Your task to perform on an android device: turn on notifications settings in the gmail app Image 0: 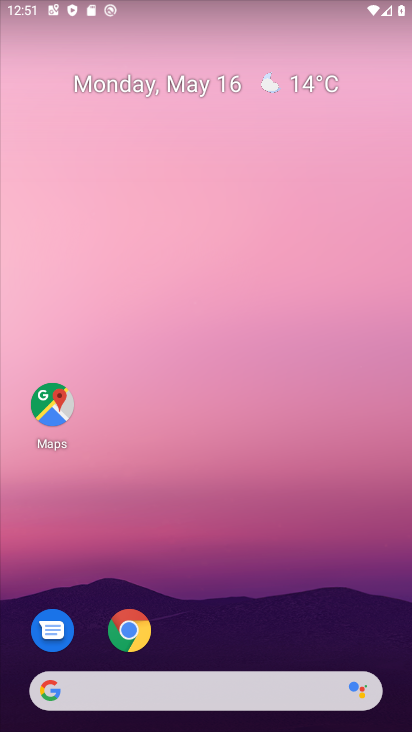
Step 0: drag from (304, 646) to (262, 18)
Your task to perform on an android device: turn on notifications settings in the gmail app Image 1: 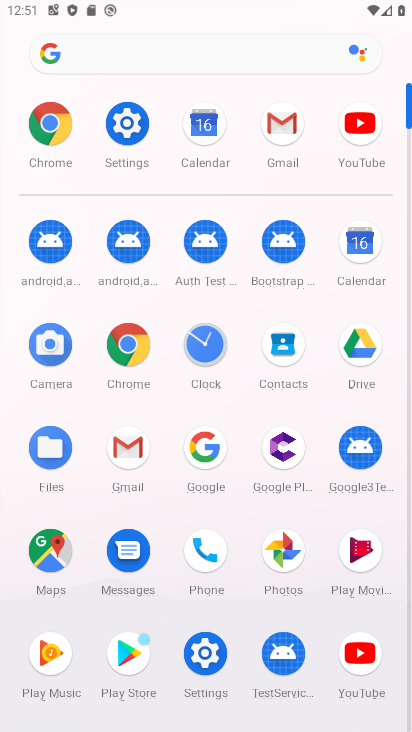
Step 1: click (282, 142)
Your task to perform on an android device: turn on notifications settings in the gmail app Image 2: 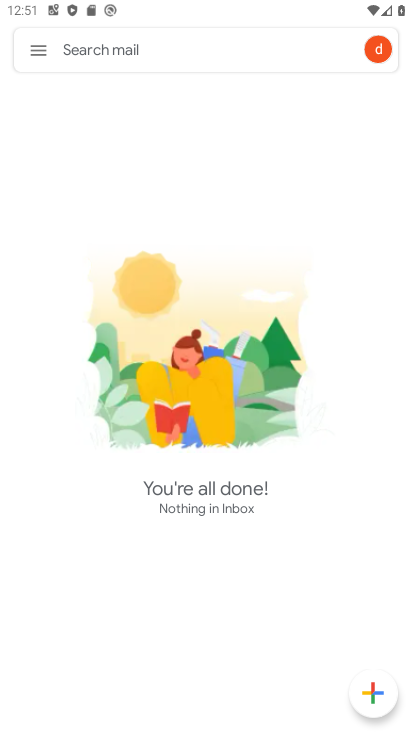
Step 2: click (35, 50)
Your task to perform on an android device: turn on notifications settings in the gmail app Image 3: 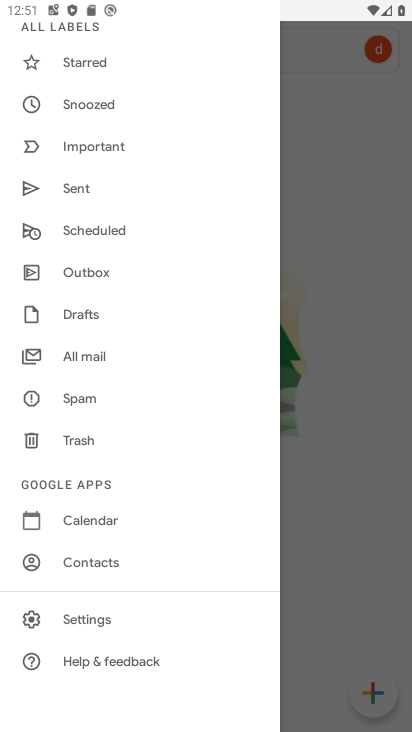
Step 3: click (100, 621)
Your task to perform on an android device: turn on notifications settings in the gmail app Image 4: 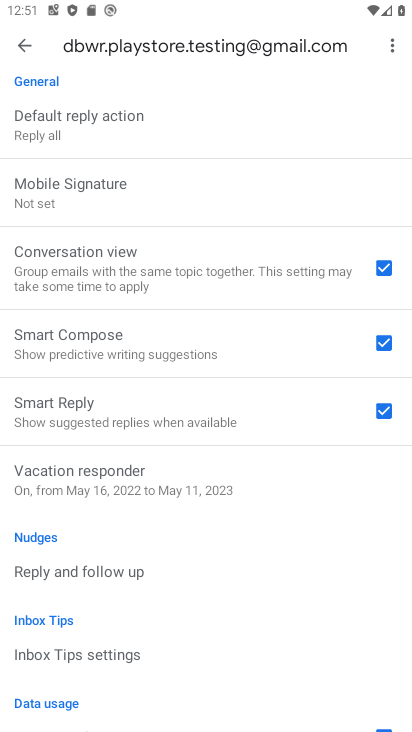
Step 4: drag from (161, 146) to (194, 507)
Your task to perform on an android device: turn on notifications settings in the gmail app Image 5: 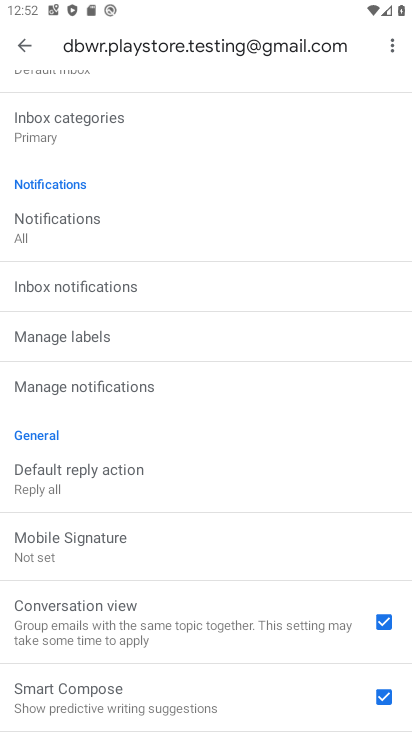
Step 5: drag from (176, 323) to (217, 536)
Your task to perform on an android device: turn on notifications settings in the gmail app Image 6: 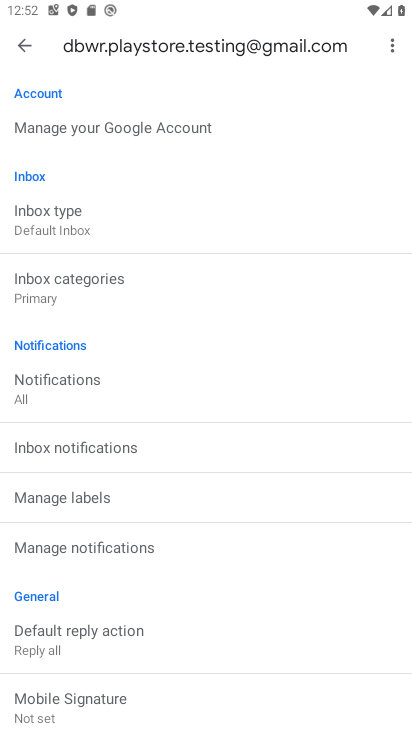
Step 6: click (152, 392)
Your task to perform on an android device: turn on notifications settings in the gmail app Image 7: 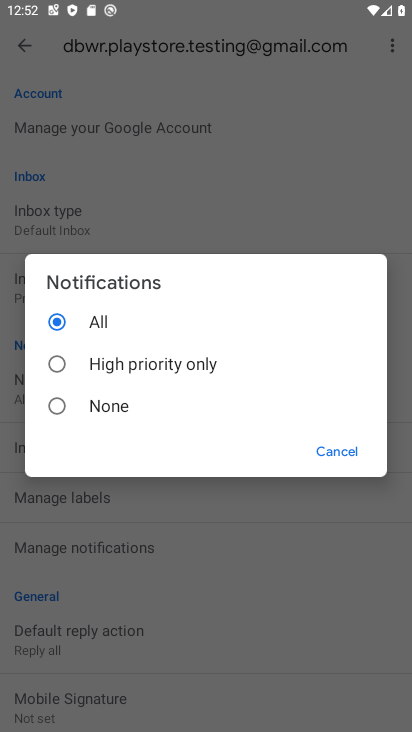
Step 7: click (126, 403)
Your task to perform on an android device: turn on notifications settings in the gmail app Image 8: 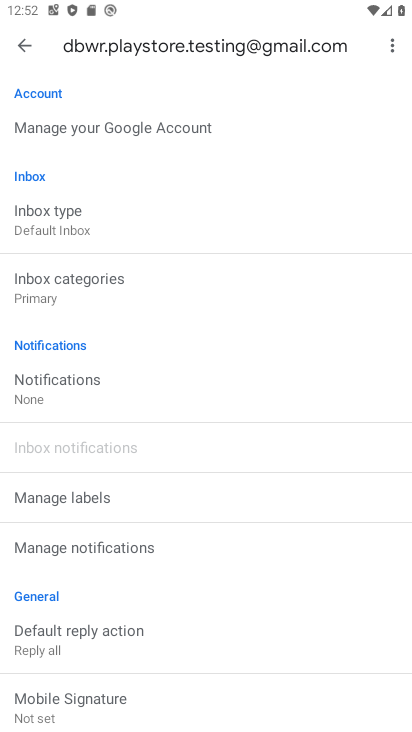
Step 8: task complete